Your task to perform on an android device: turn notification dots on Image 0: 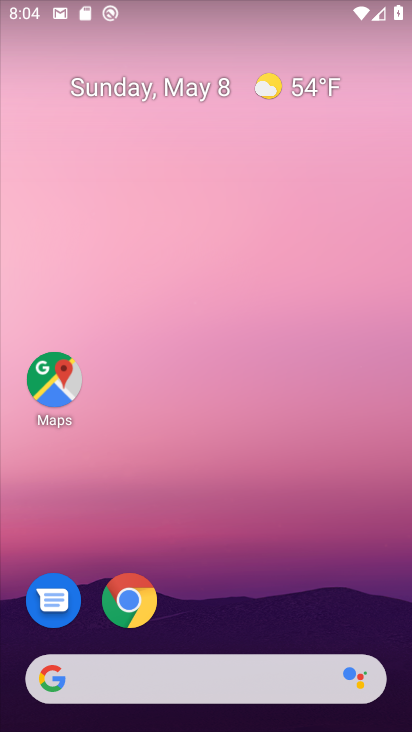
Step 0: drag from (253, 664) to (208, 255)
Your task to perform on an android device: turn notification dots on Image 1: 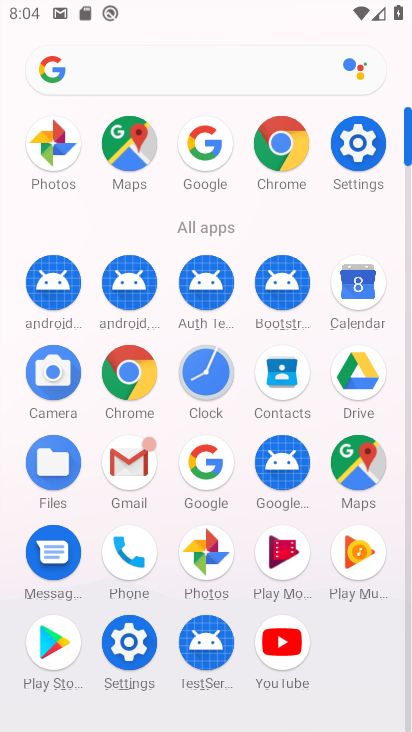
Step 1: click (359, 162)
Your task to perform on an android device: turn notification dots on Image 2: 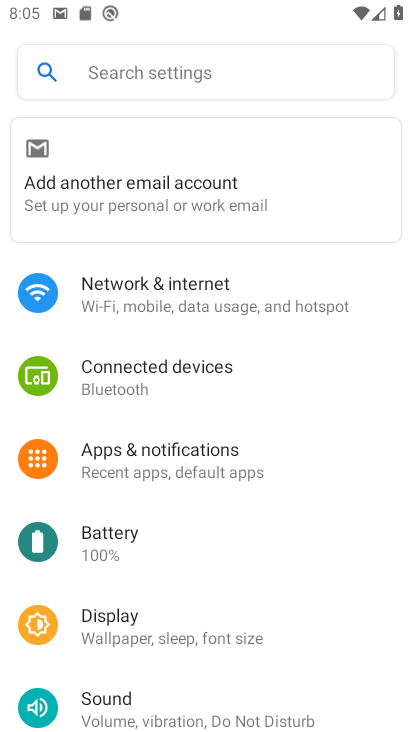
Step 2: drag from (186, 527) to (228, 259)
Your task to perform on an android device: turn notification dots on Image 3: 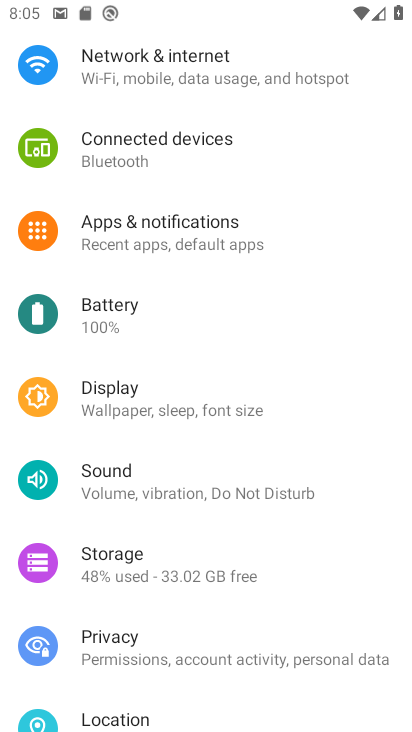
Step 3: click (251, 242)
Your task to perform on an android device: turn notification dots on Image 4: 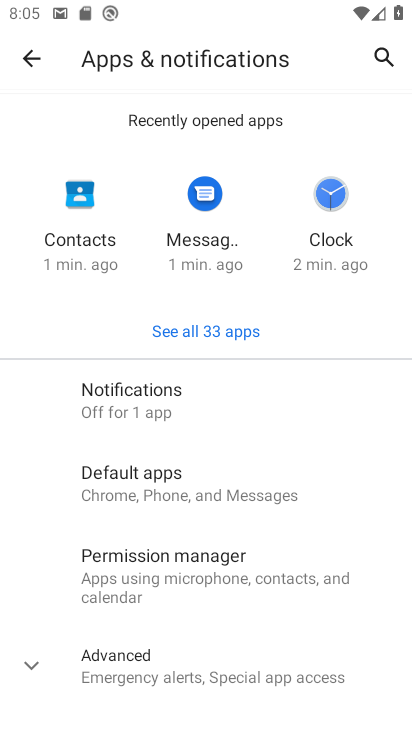
Step 4: click (220, 426)
Your task to perform on an android device: turn notification dots on Image 5: 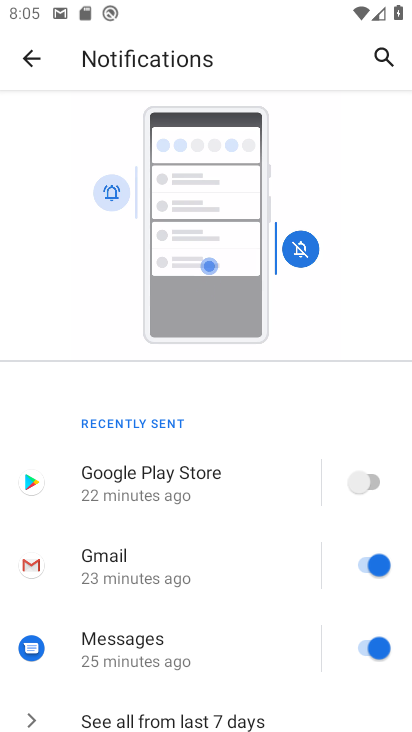
Step 5: drag from (175, 654) to (191, 83)
Your task to perform on an android device: turn notification dots on Image 6: 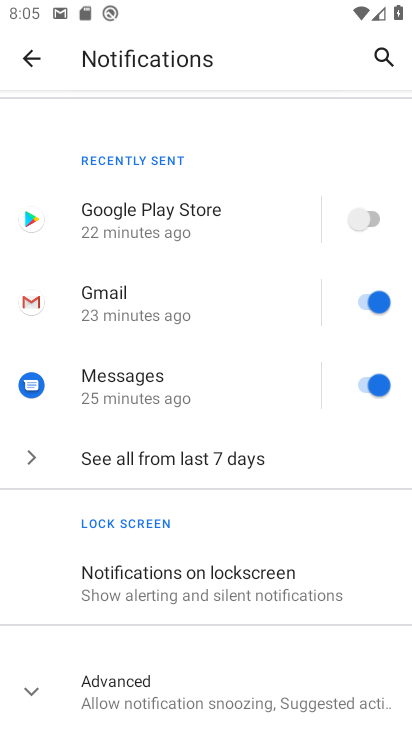
Step 6: click (143, 700)
Your task to perform on an android device: turn notification dots on Image 7: 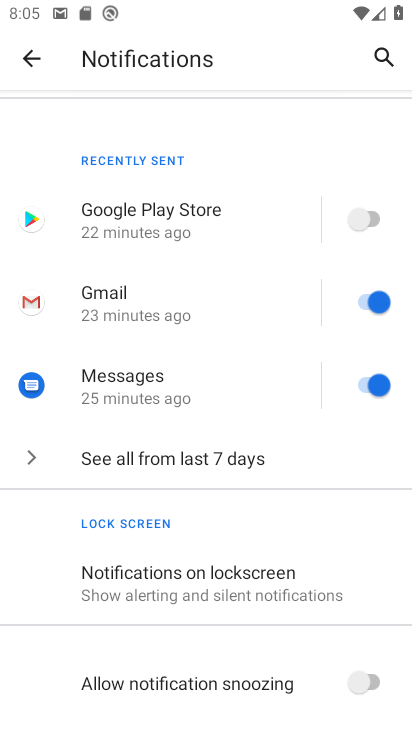
Step 7: task complete